Your task to perform on an android device: set an alarm Image 0: 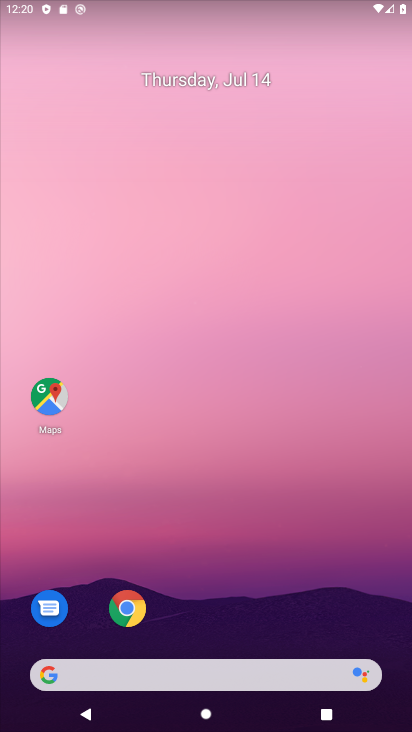
Step 0: drag from (216, 674) to (291, 280)
Your task to perform on an android device: set an alarm Image 1: 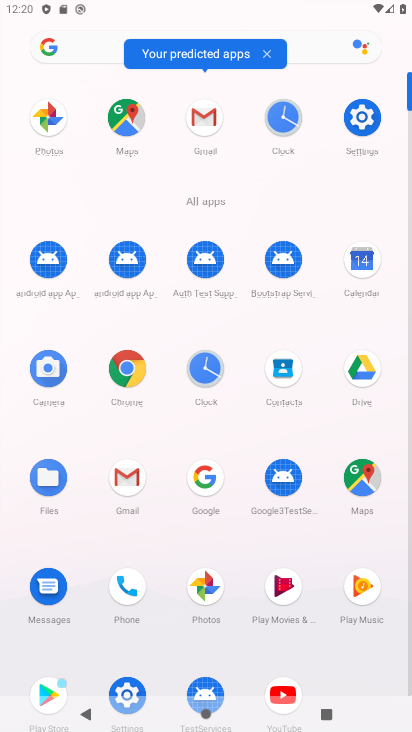
Step 1: click (283, 117)
Your task to perform on an android device: set an alarm Image 2: 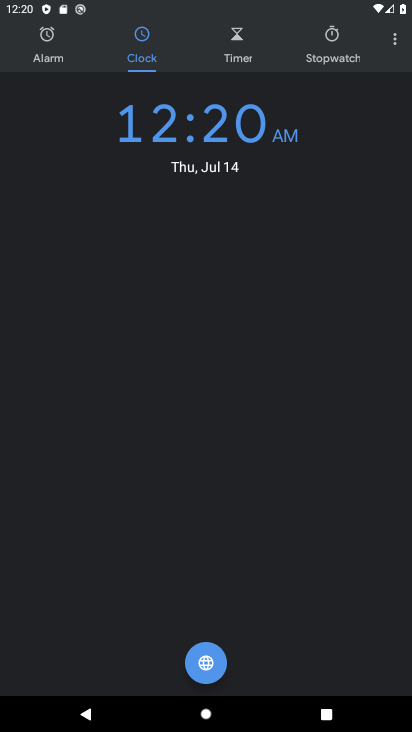
Step 2: click (49, 34)
Your task to perform on an android device: set an alarm Image 3: 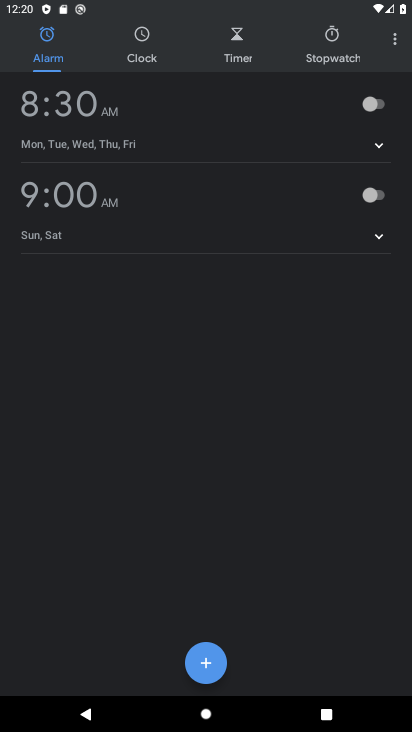
Step 3: click (207, 664)
Your task to perform on an android device: set an alarm Image 4: 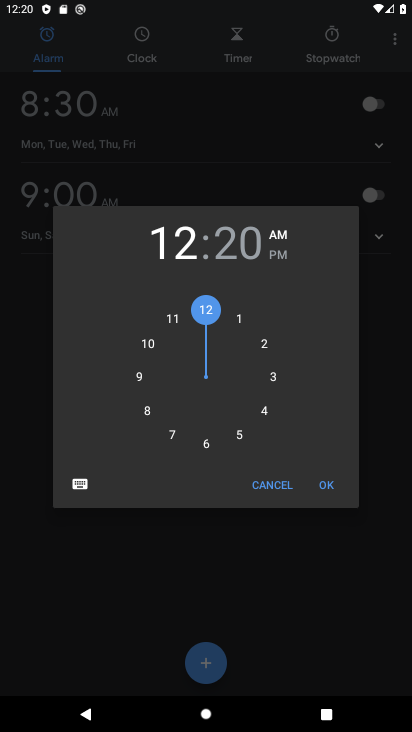
Step 4: click (207, 448)
Your task to perform on an android device: set an alarm Image 5: 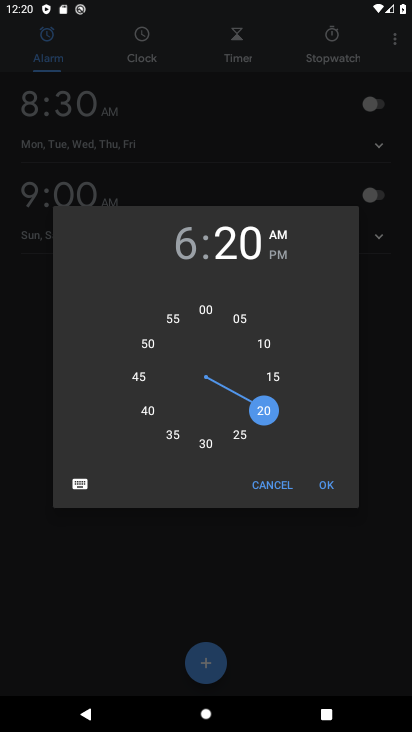
Step 5: click (160, 434)
Your task to perform on an android device: set an alarm Image 6: 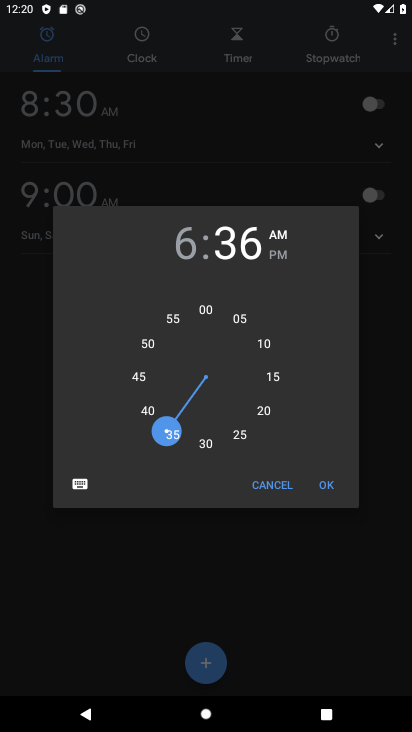
Step 6: click (329, 484)
Your task to perform on an android device: set an alarm Image 7: 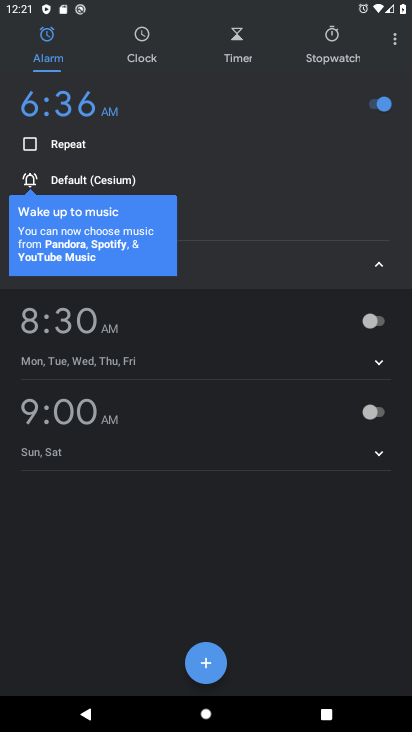
Step 7: task complete